Your task to perform on an android device: turn on notifications settings in the gmail app Image 0: 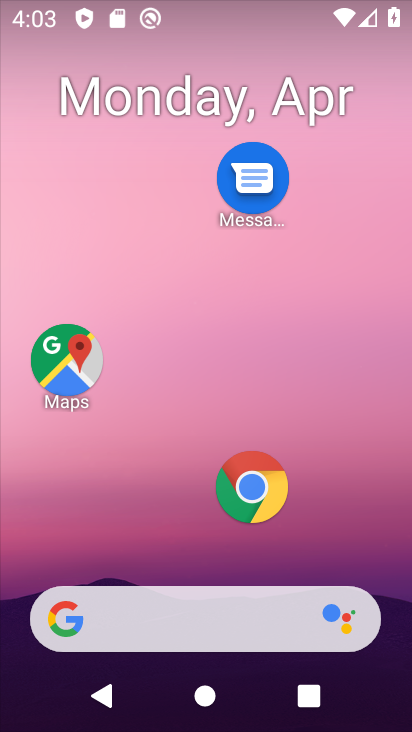
Step 0: click (194, 389)
Your task to perform on an android device: turn on notifications settings in the gmail app Image 1: 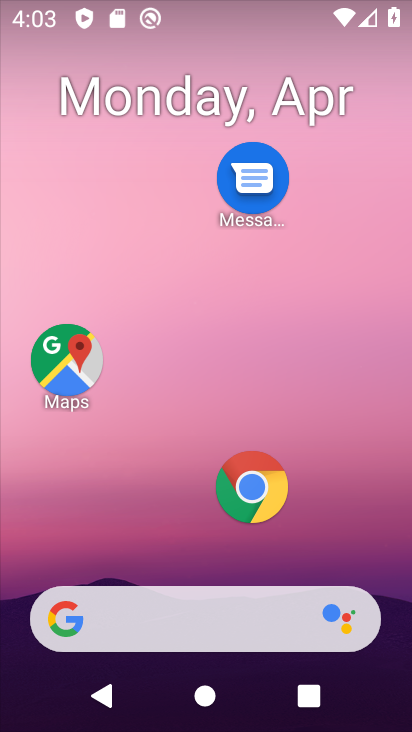
Step 1: drag from (171, 525) to (223, 23)
Your task to perform on an android device: turn on notifications settings in the gmail app Image 2: 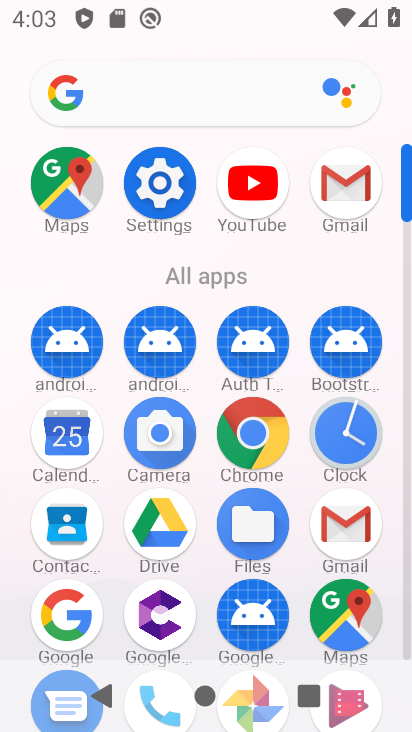
Step 2: click (351, 508)
Your task to perform on an android device: turn on notifications settings in the gmail app Image 3: 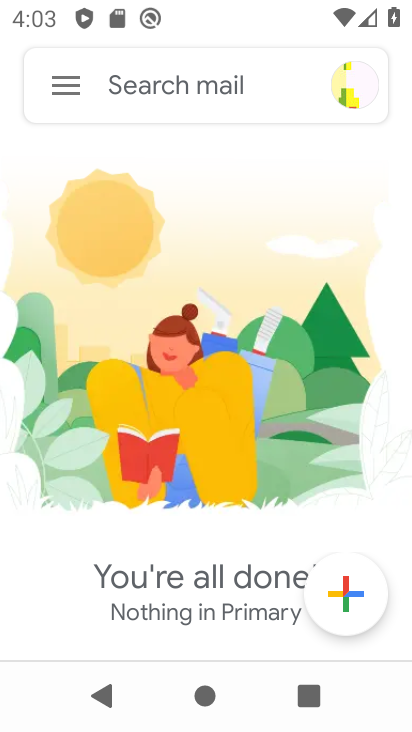
Step 3: click (56, 88)
Your task to perform on an android device: turn on notifications settings in the gmail app Image 4: 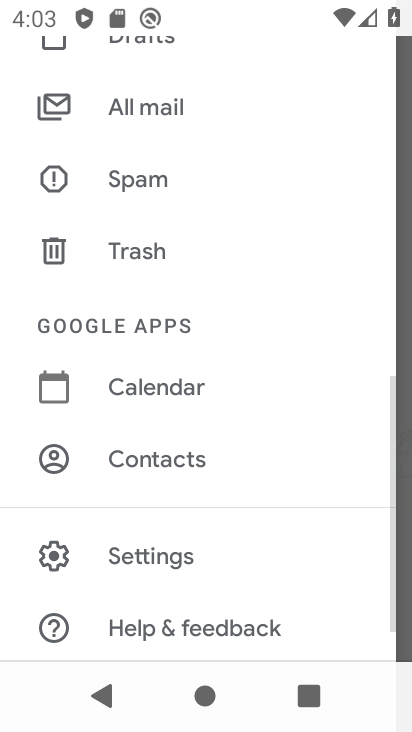
Step 4: click (153, 558)
Your task to perform on an android device: turn on notifications settings in the gmail app Image 5: 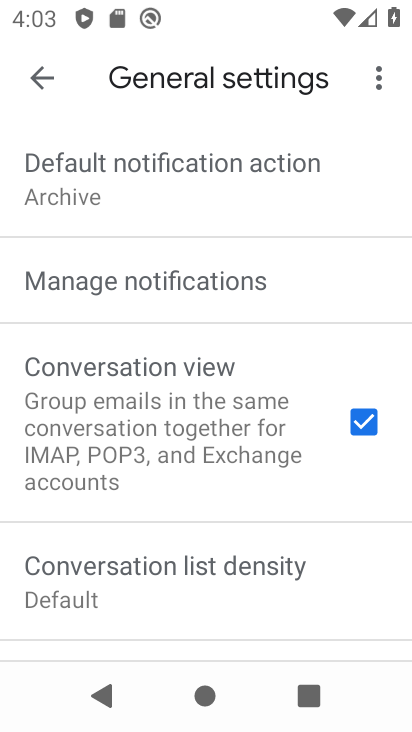
Step 5: click (138, 270)
Your task to perform on an android device: turn on notifications settings in the gmail app Image 6: 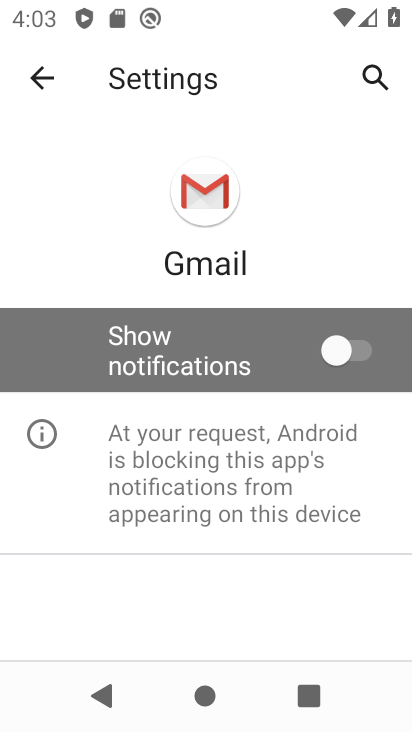
Step 6: click (331, 351)
Your task to perform on an android device: turn on notifications settings in the gmail app Image 7: 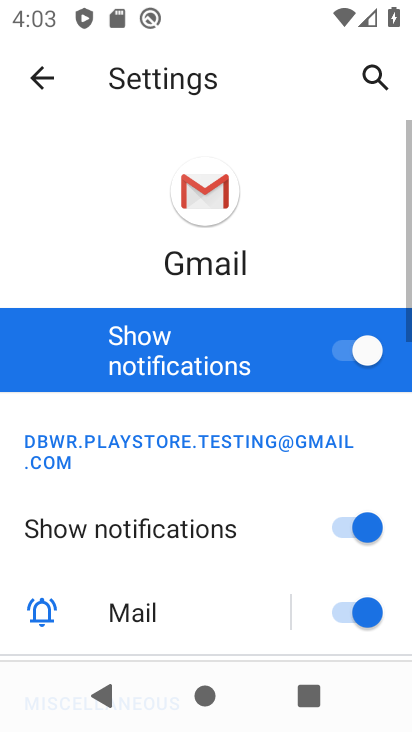
Step 7: task complete